Your task to perform on an android device: Go to internet settings Image 0: 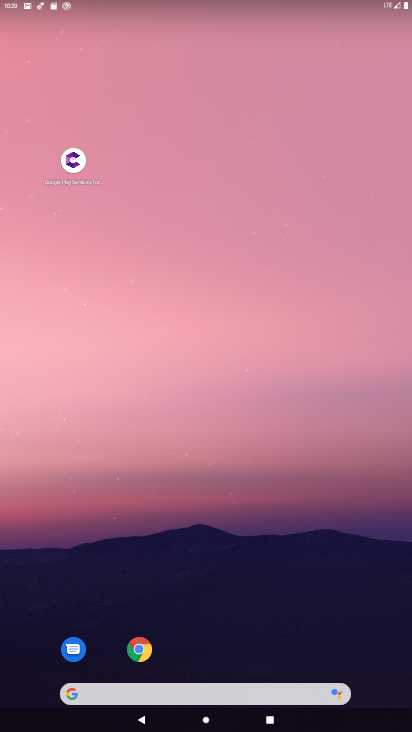
Step 0: drag from (260, 638) to (213, 181)
Your task to perform on an android device: Go to internet settings Image 1: 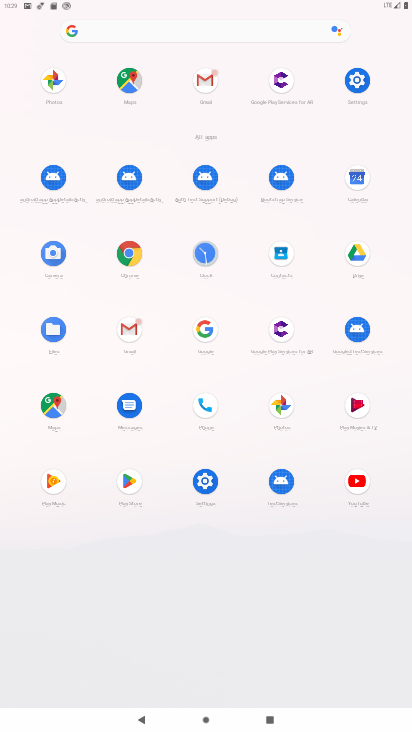
Step 1: click (353, 79)
Your task to perform on an android device: Go to internet settings Image 2: 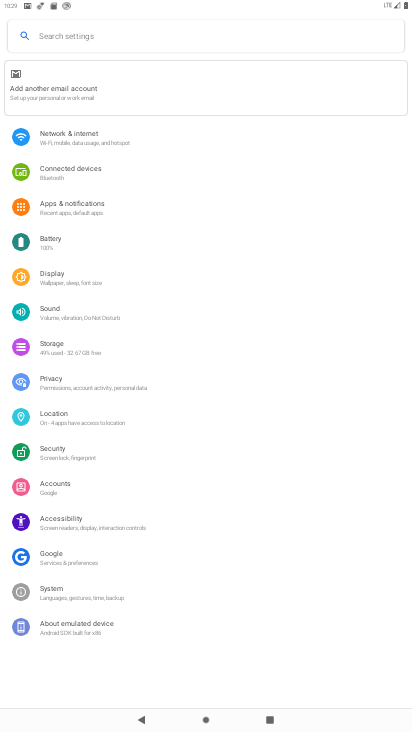
Step 2: click (118, 140)
Your task to perform on an android device: Go to internet settings Image 3: 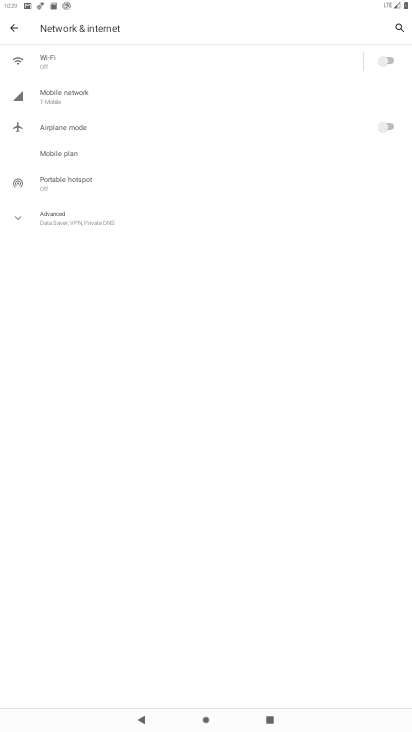
Step 3: task complete